Your task to perform on an android device: Clear the cart on walmart.com. Search for "usb-c to usb-a" on walmart.com, select the first entry, and add it to the cart. Image 0: 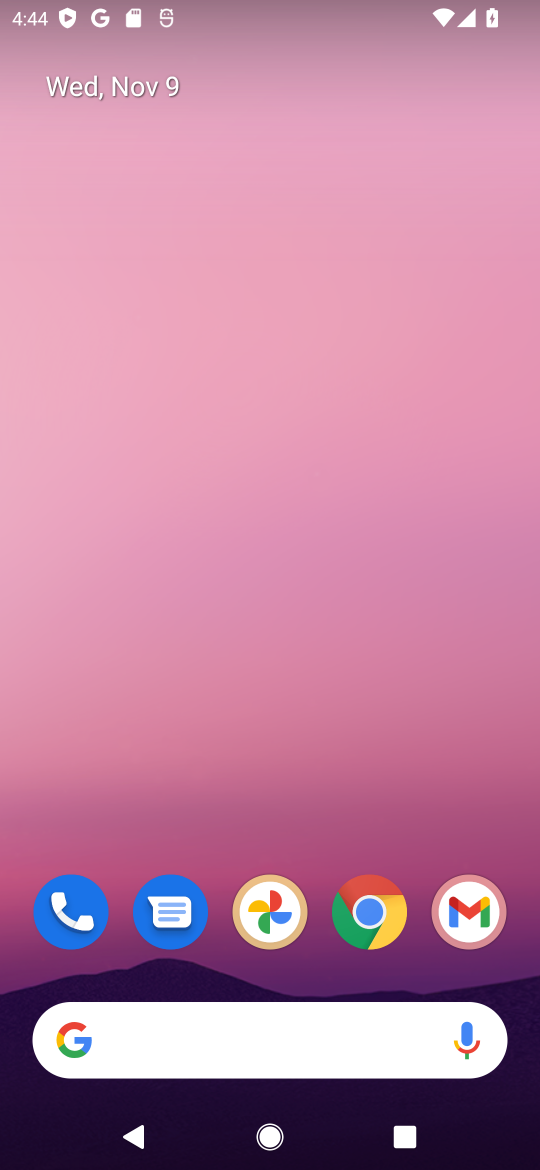
Step 0: click (371, 912)
Your task to perform on an android device: Clear the cart on walmart.com. Search for "usb-c to usb-a" on walmart.com, select the first entry, and add it to the cart. Image 1: 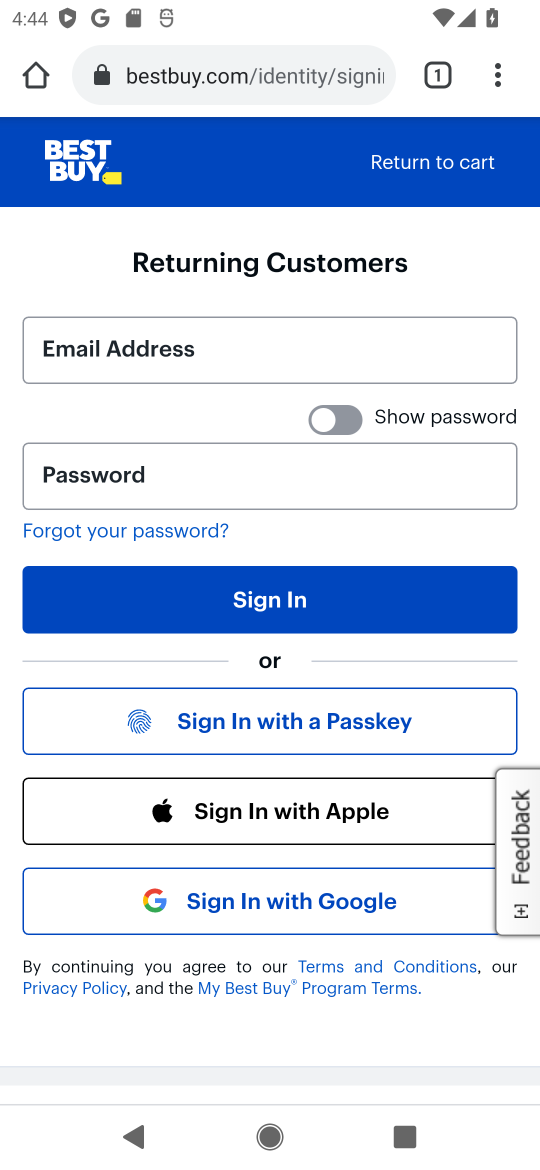
Step 1: click (196, 74)
Your task to perform on an android device: Clear the cart on walmart.com. Search for "usb-c to usb-a" on walmart.com, select the first entry, and add it to the cart. Image 2: 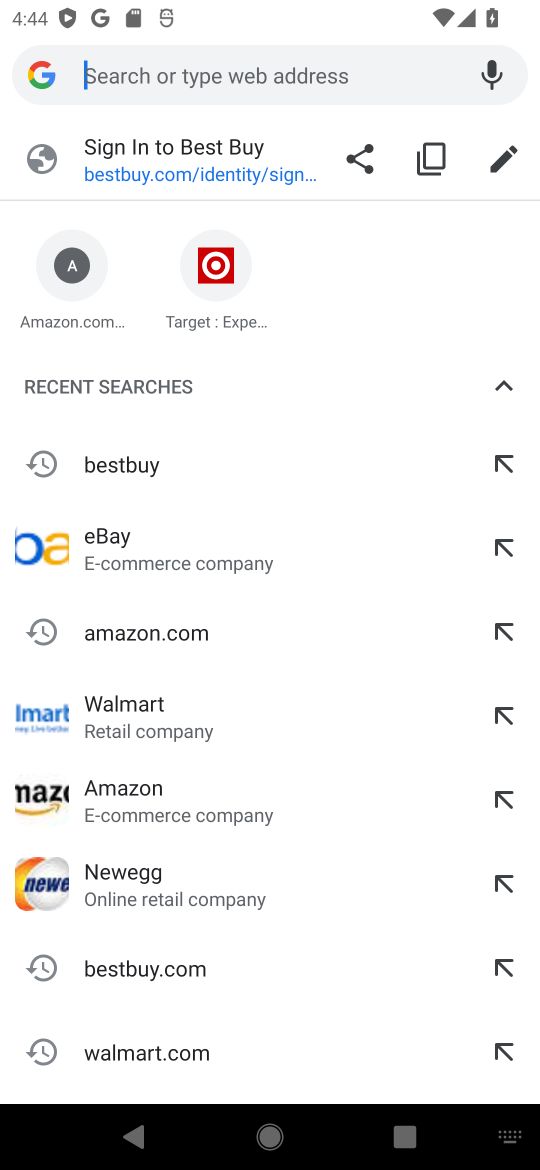
Step 2: click (211, 64)
Your task to perform on an android device: Clear the cart on walmart.com. Search for "usb-c to usb-a" on walmart.com, select the first entry, and add it to the cart. Image 3: 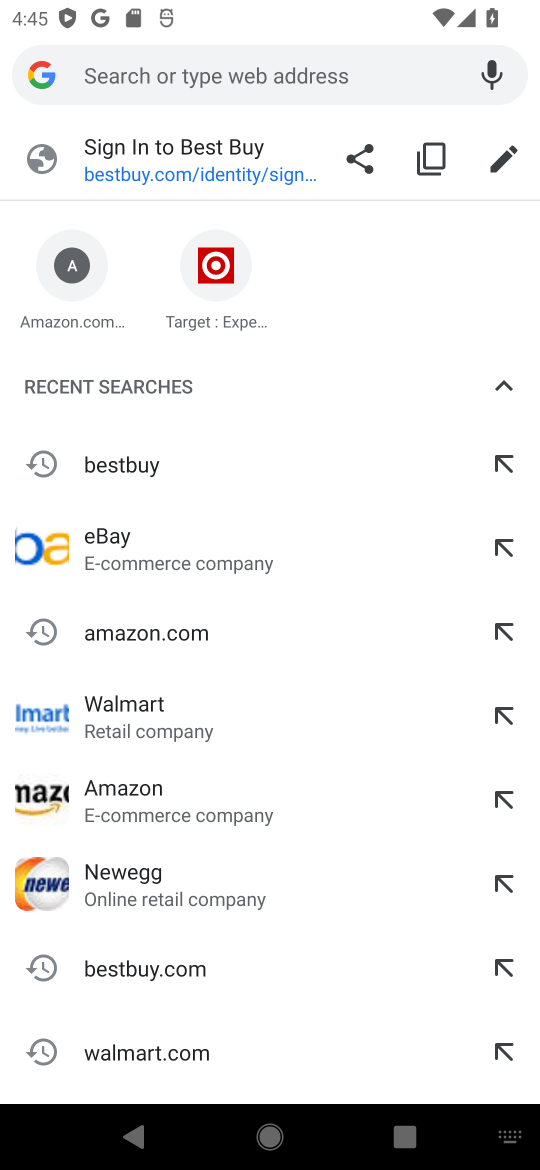
Step 3: type "walmart.com"
Your task to perform on an android device: Clear the cart on walmart.com. Search for "usb-c to usb-a" on walmart.com, select the first entry, and add it to the cart. Image 4: 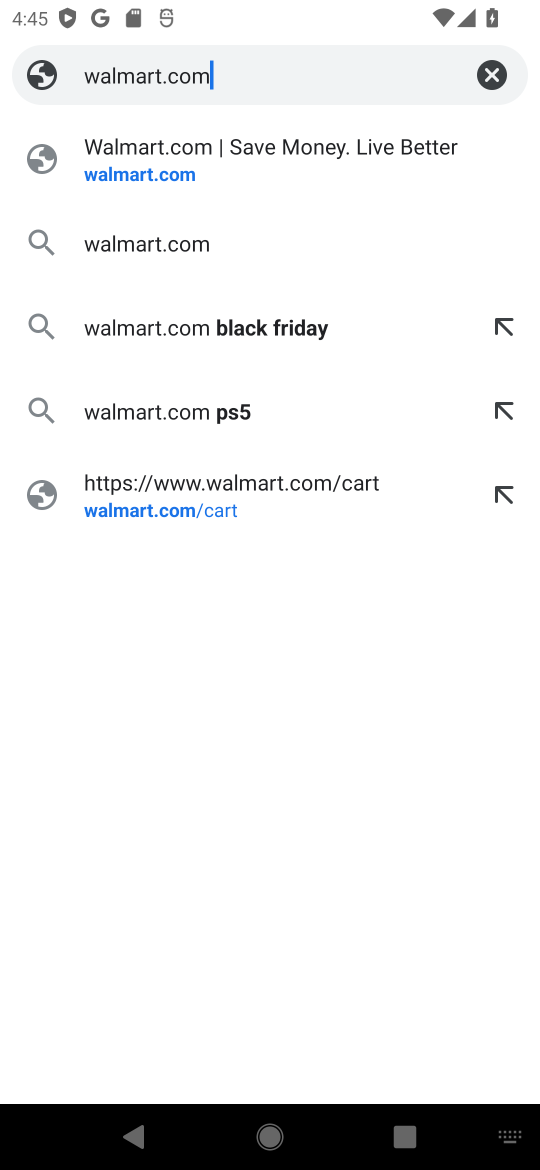
Step 4: click (177, 247)
Your task to perform on an android device: Clear the cart on walmart.com. Search for "usb-c to usb-a" on walmart.com, select the first entry, and add it to the cart. Image 5: 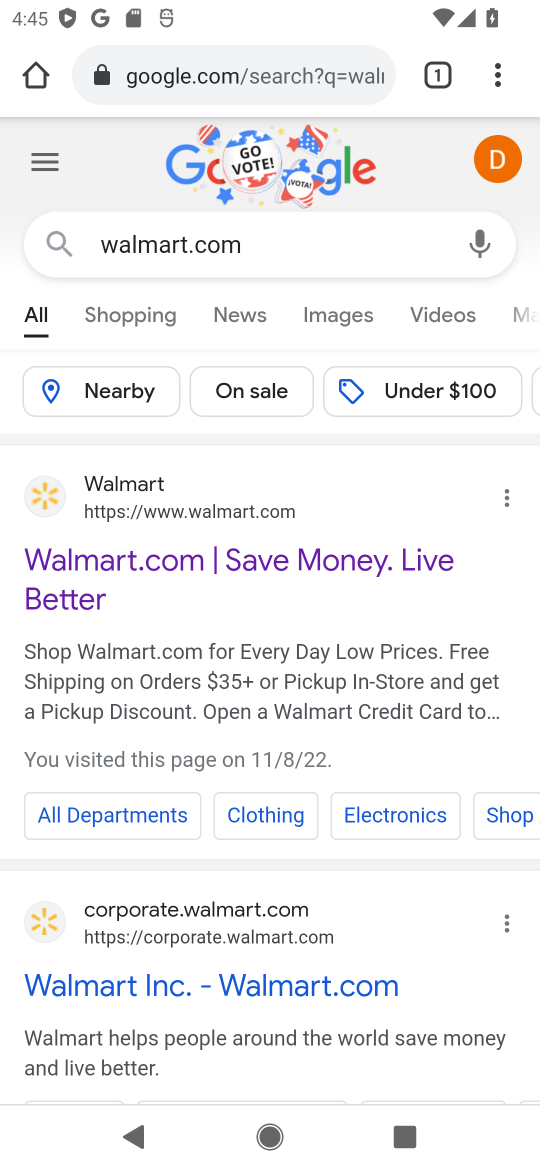
Step 5: click (211, 551)
Your task to perform on an android device: Clear the cart on walmart.com. Search for "usb-c to usb-a" on walmart.com, select the first entry, and add it to the cart. Image 6: 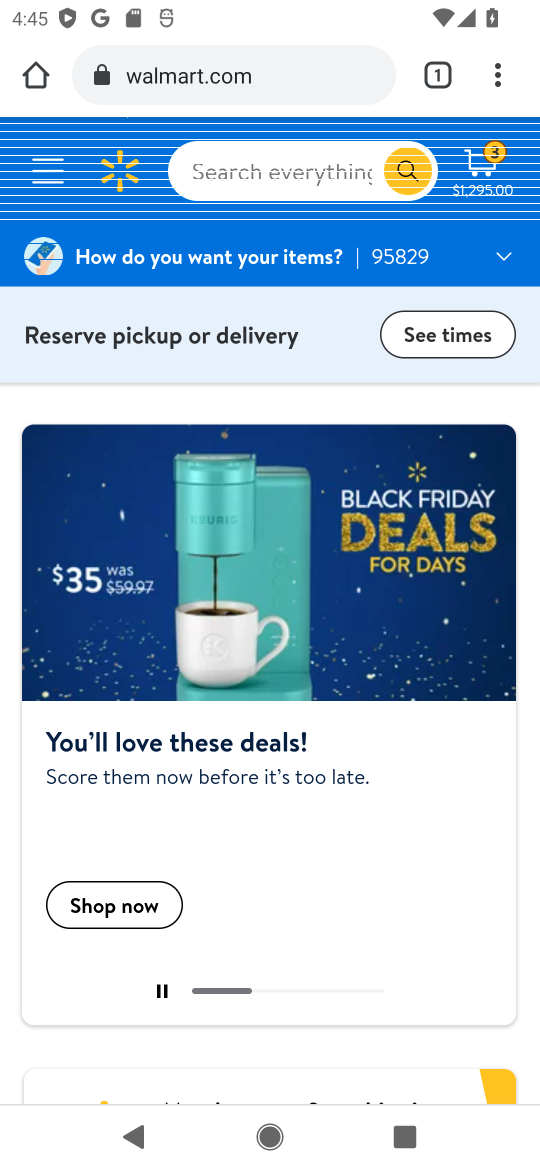
Step 6: click (234, 181)
Your task to perform on an android device: Clear the cart on walmart.com. Search for "usb-c to usb-a" on walmart.com, select the first entry, and add it to the cart. Image 7: 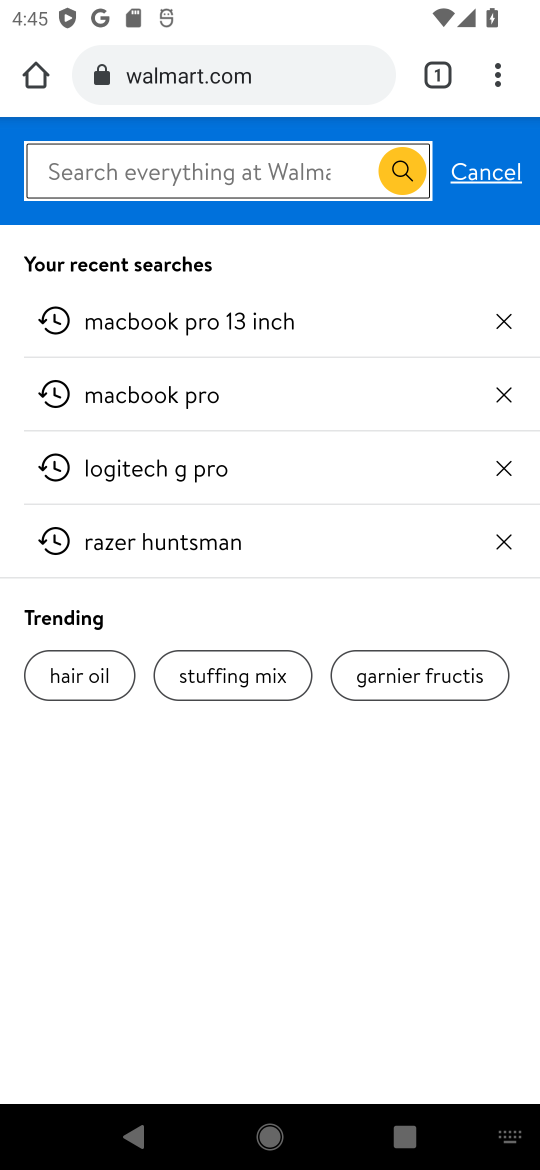
Step 7: type "usb-c to usb-a"
Your task to perform on an android device: Clear the cart on walmart.com. Search for "usb-c to usb-a" on walmart.com, select the first entry, and add it to the cart. Image 8: 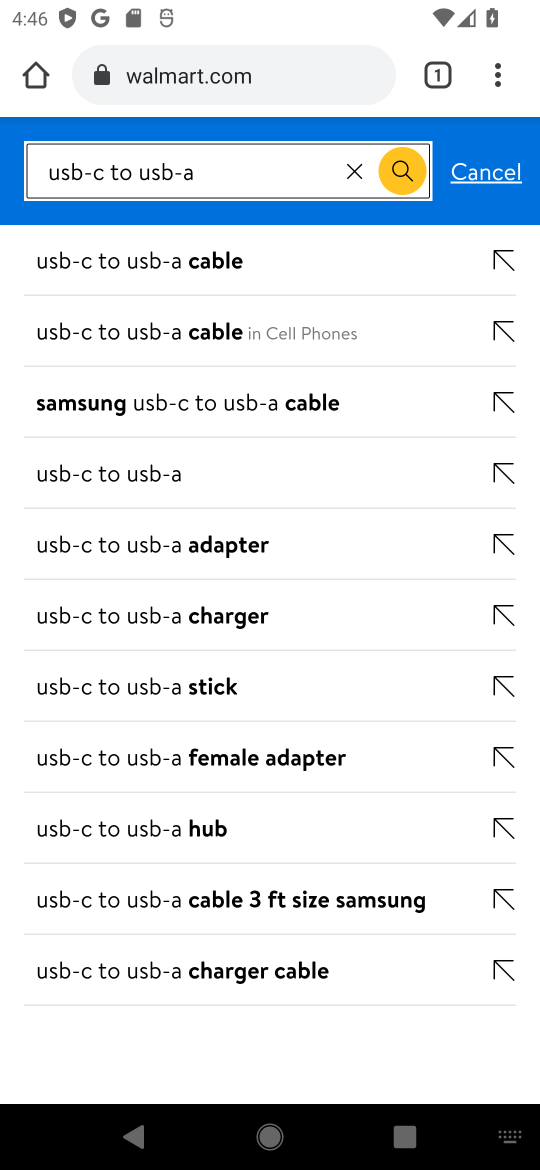
Step 8: click (161, 477)
Your task to perform on an android device: Clear the cart on walmart.com. Search for "usb-c to usb-a" on walmart.com, select the first entry, and add it to the cart. Image 9: 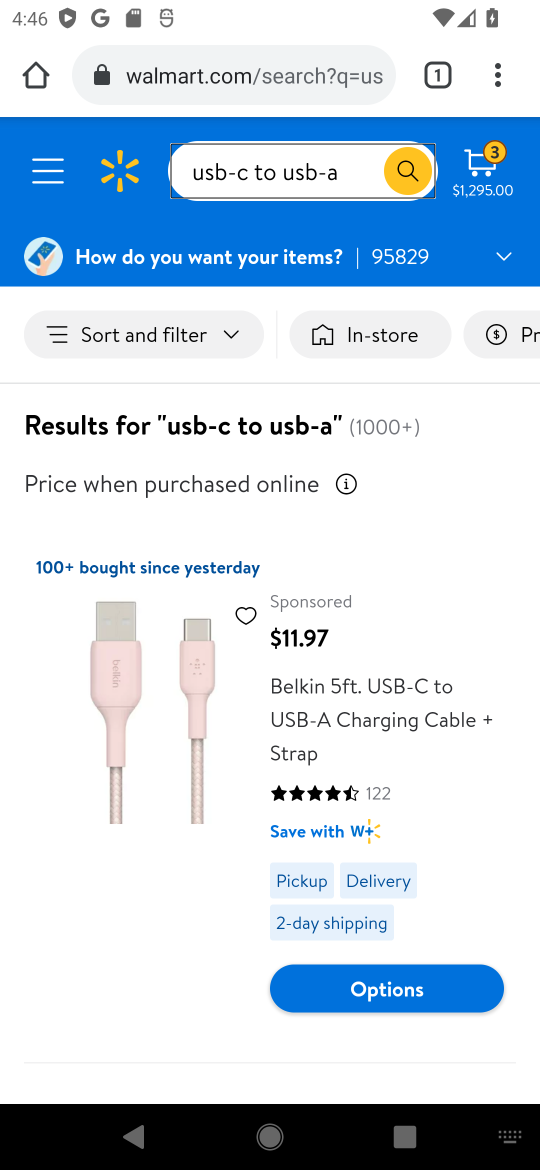
Step 9: click (303, 653)
Your task to perform on an android device: Clear the cart on walmart.com. Search for "usb-c to usb-a" on walmart.com, select the first entry, and add it to the cart. Image 10: 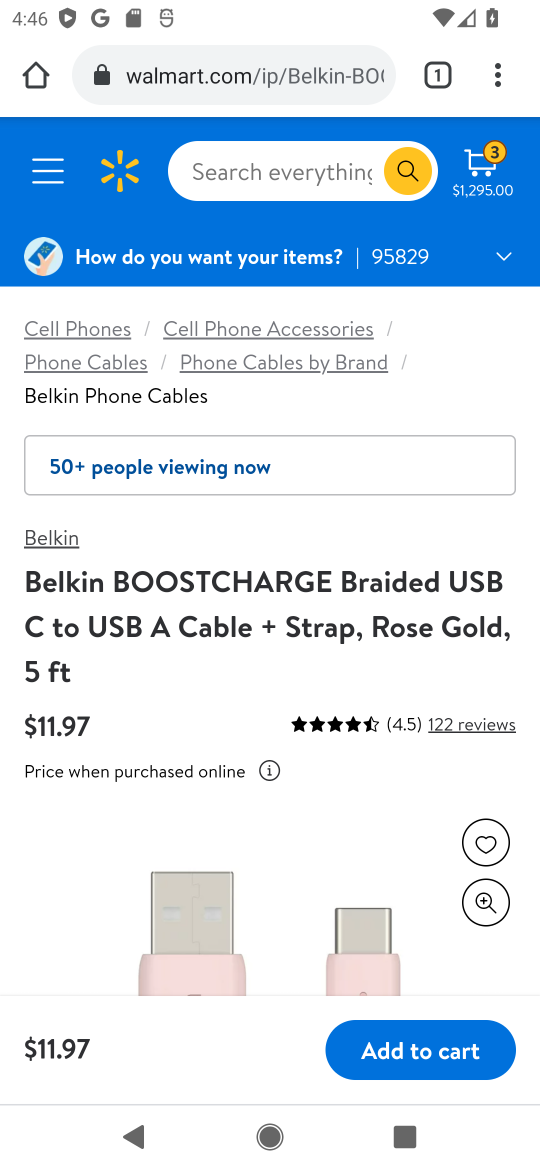
Step 10: click (427, 1054)
Your task to perform on an android device: Clear the cart on walmart.com. Search for "usb-c to usb-a" on walmart.com, select the first entry, and add it to the cart. Image 11: 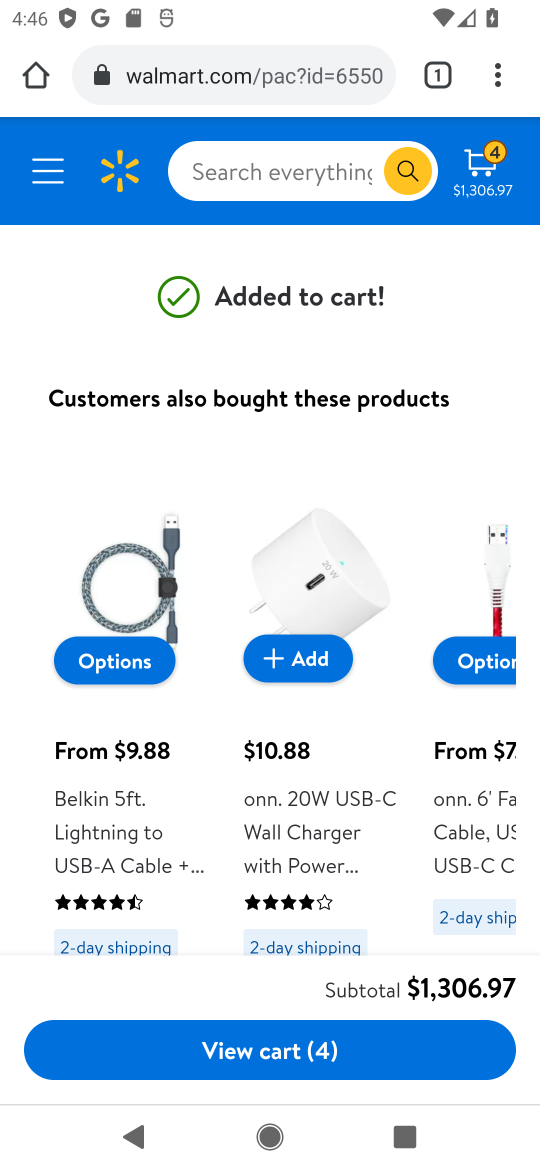
Step 11: task complete